Your task to perform on an android device: Open Google Chrome and click the shortcut for Amazon.com Image 0: 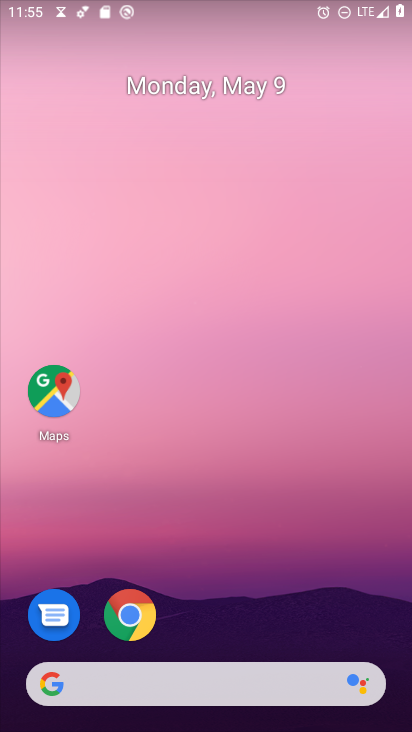
Step 0: click (129, 616)
Your task to perform on an android device: Open Google Chrome and click the shortcut for Amazon.com Image 1: 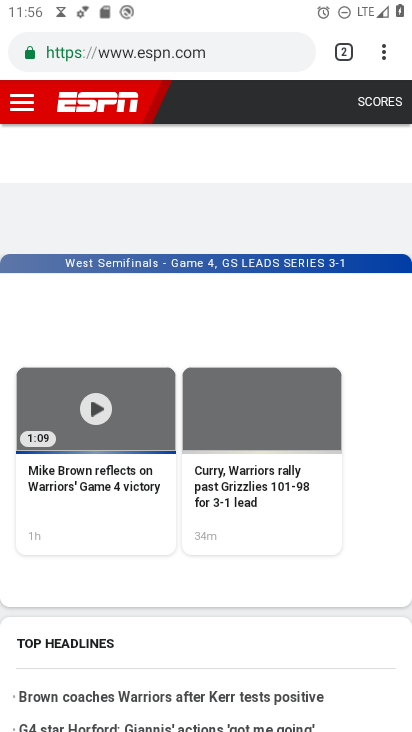
Step 1: click (385, 59)
Your task to perform on an android device: Open Google Chrome and click the shortcut for Amazon.com Image 2: 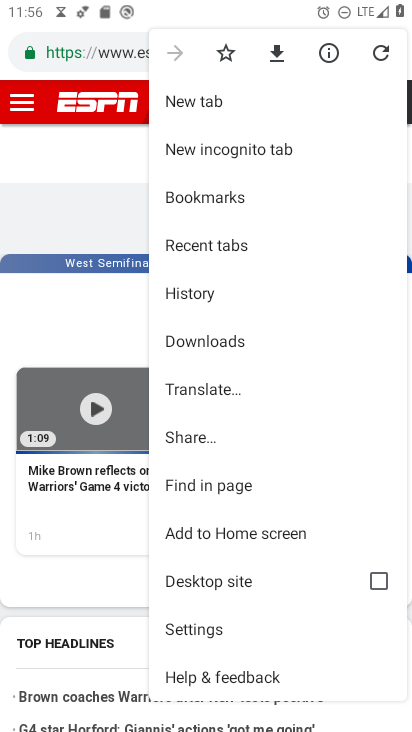
Step 2: click (194, 105)
Your task to perform on an android device: Open Google Chrome and click the shortcut for Amazon.com Image 3: 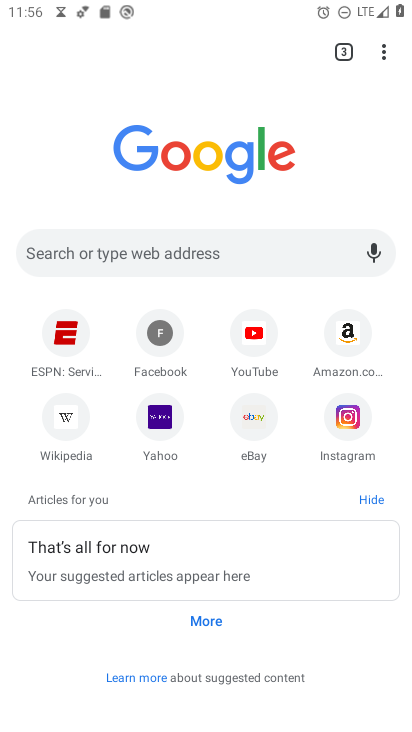
Step 3: click (348, 333)
Your task to perform on an android device: Open Google Chrome and click the shortcut for Amazon.com Image 4: 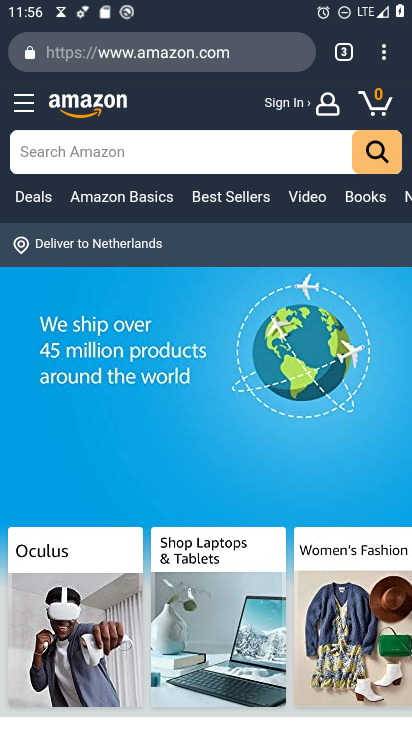
Step 4: task complete